Your task to perform on an android device: refresh tabs in the chrome app Image 0: 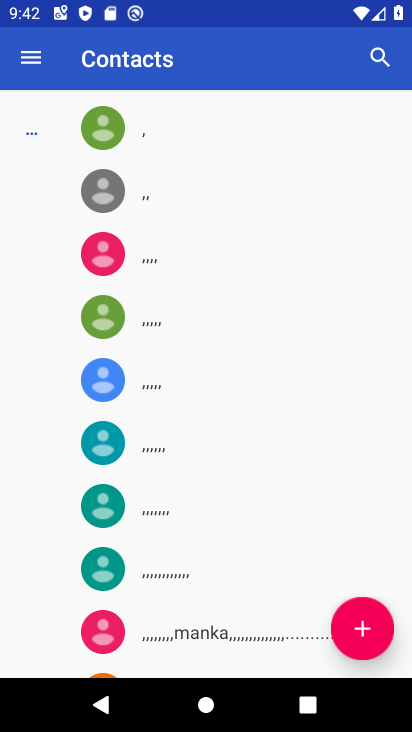
Step 0: press home button
Your task to perform on an android device: refresh tabs in the chrome app Image 1: 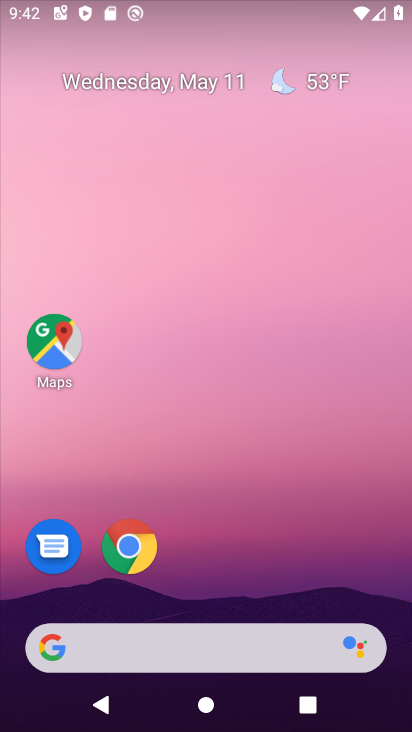
Step 1: drag from (355, 594) to (248, 56)
Your task to perform on an android device: refresh tabs in the chrome app Image 2: 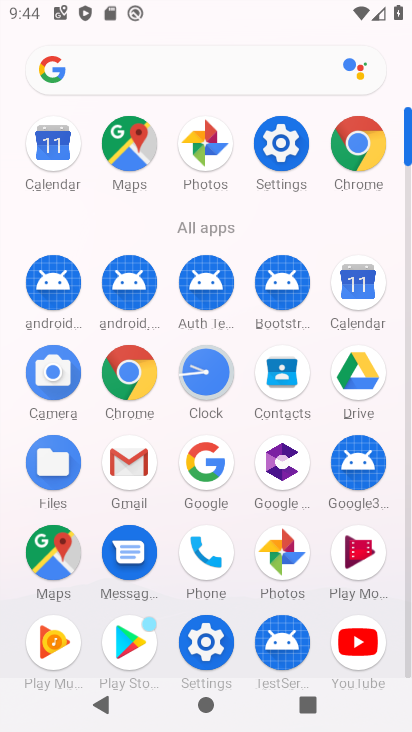
Step 2: click (131, 377)
Your task to perform on an android device: refresh tabs in the chrome app Image 3: 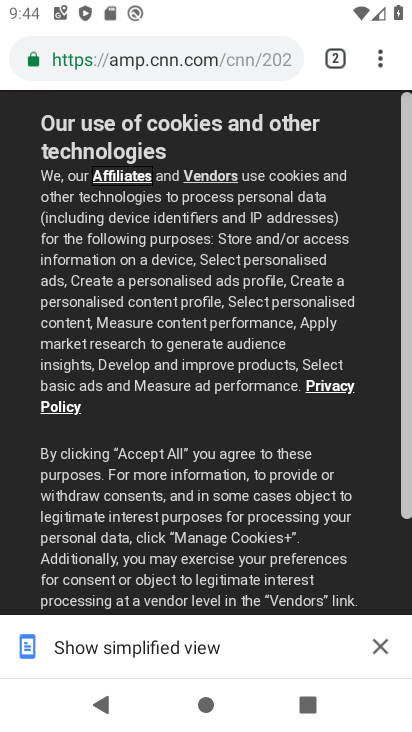
Step 3: press back button
Your task to perform on an android device: refresh tabs in the chrome app Image 4: 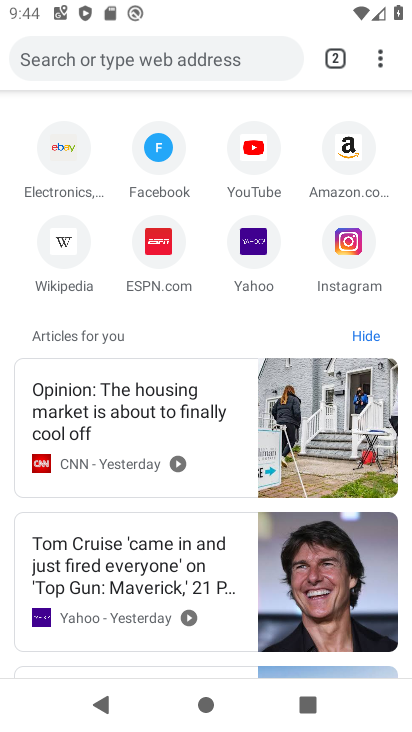
Step 4: click (388, 60)
Your task to perform on an android device: refresh tabs in the chrome app Image 5: 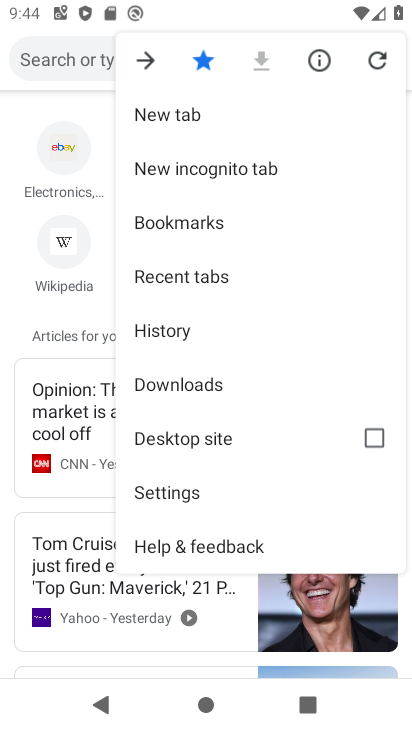
Step 5: click (373, 66)
Your task to perform on an android device: refresh tabs in the chrome app Image 6: 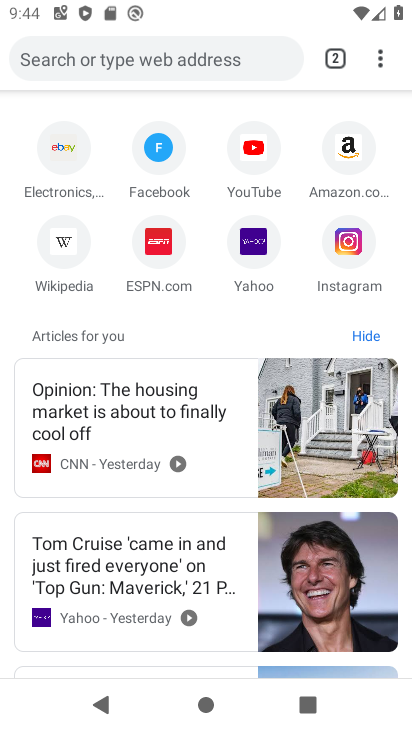
Step 6: task complete